Your task to perform on an android device: Go to eBay Image 0: 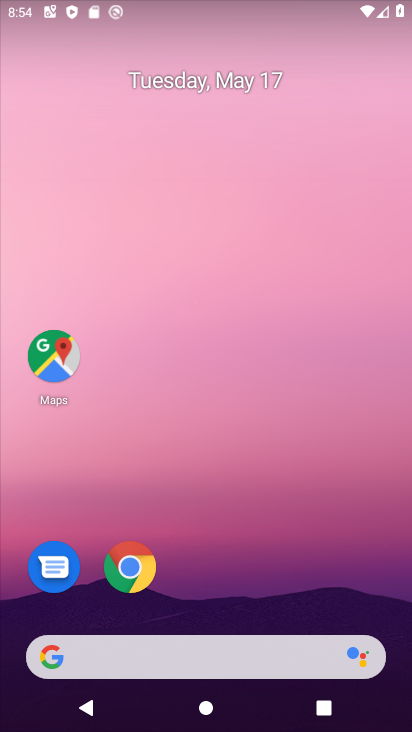
Step 0: click (127, 567)
Your task to perform on an android device: Go to eBay Image 1: 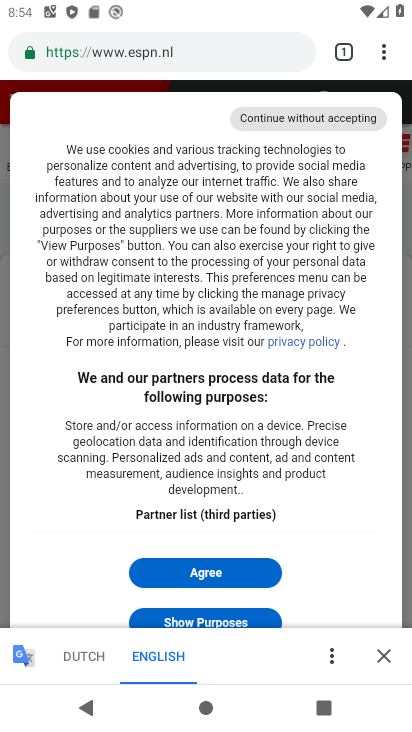
Step 1: click (380, 54)
Your task to perform on an android device: Go to eBay Image 2: 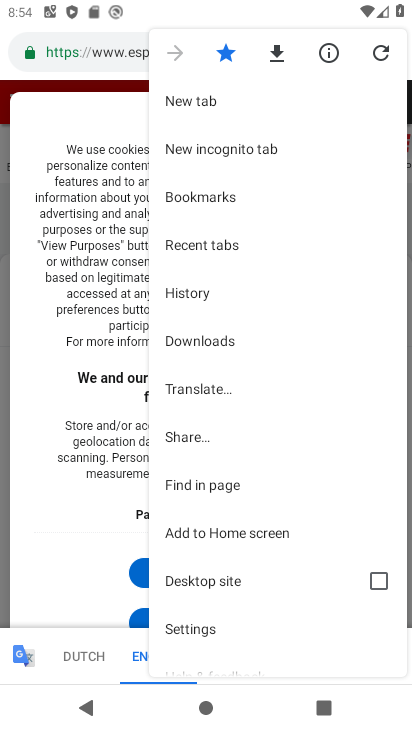
Step 2: click (191, 106)
Your task to perform on an android device: Go to eBay Image 3: 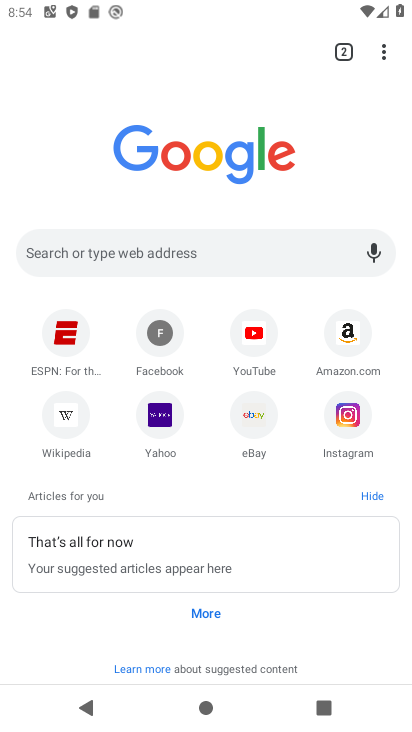
Step 3: click (267, 417)
Your task to perform on an android device: Go to eBay Image 4: 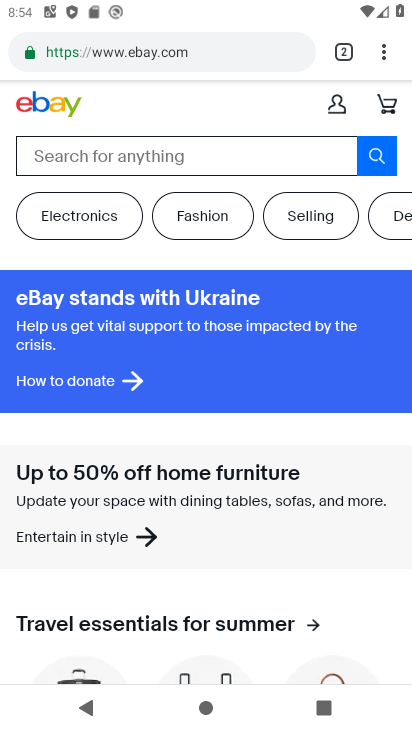
Step 4: task complete